Your task to perform on an android device: Go to Amazon Image 0: 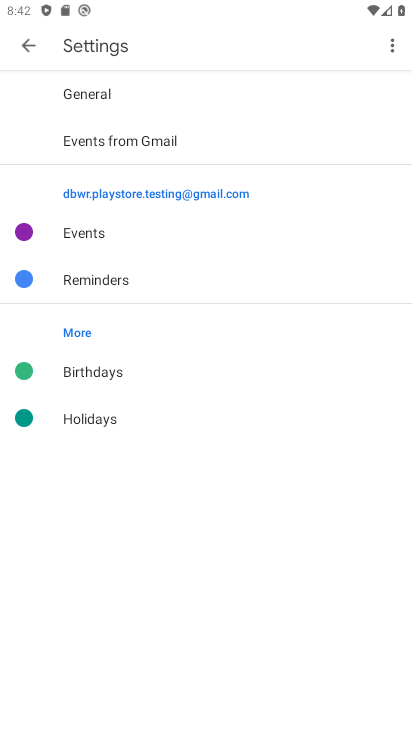
Step 0: press home button
Your task to perform on an android device: Go to Amazon Image 1: 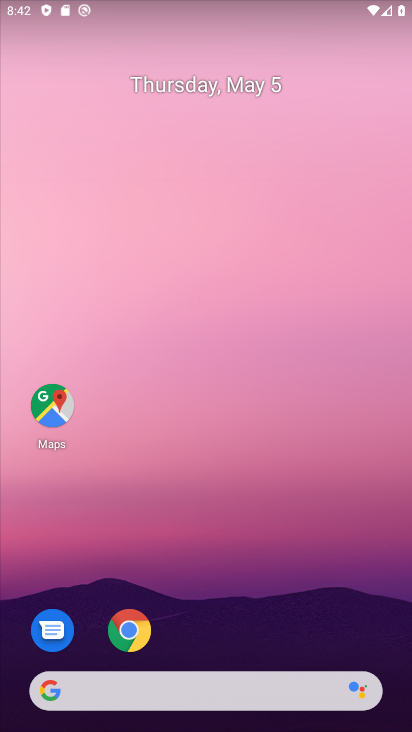
Step 1: click (125, 626)
Your task to perform on an android device: Go to Amazon Image 2: 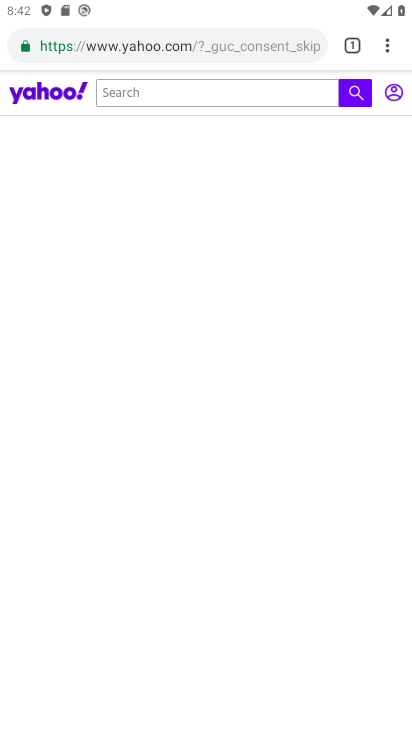
Step 2: click (236, 46)
Your task to perform on an android device: Go to Amazon Image 3: 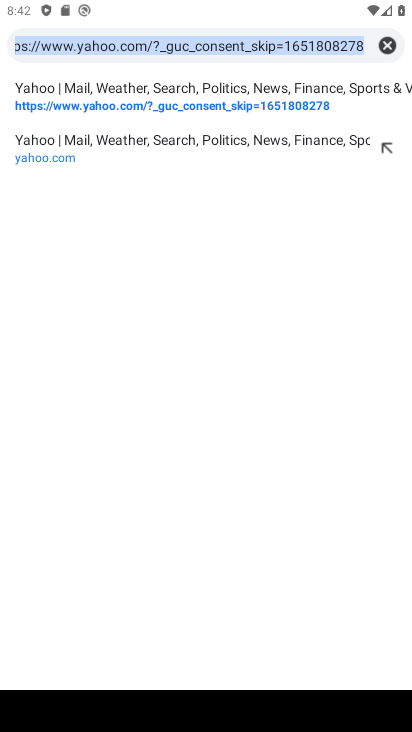
Step 3: type "amazon"
Your task to perform on an android device: Go to Amazon Image 4: 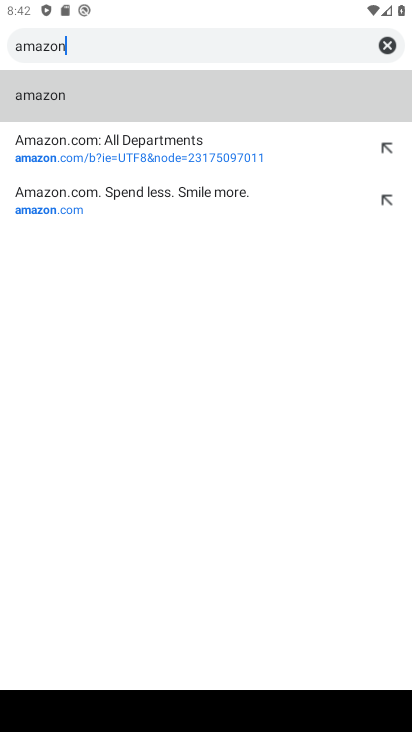
Step 4: click (126, 134)
Your task to perform on an android device: Go to Amazon Image 5: 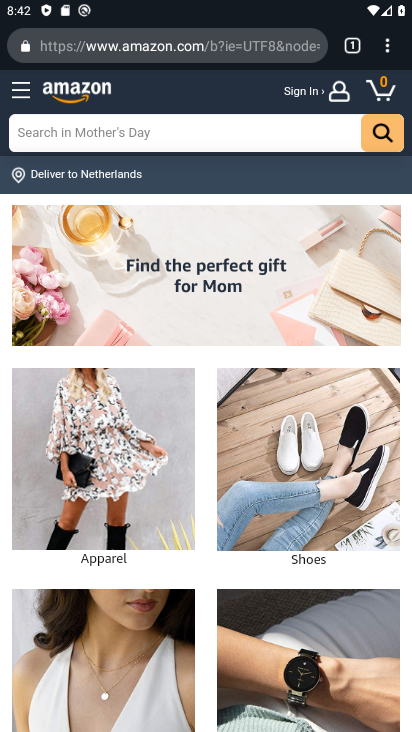
Step 5: task complete